Your task to perform on an android device: change notification settings in the gmail app Image 0: 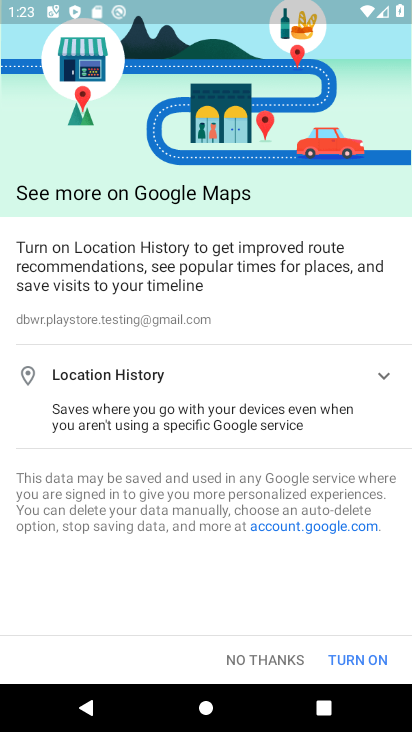
Step 0: press home button
Your task to perform on an android device: change notification settings in the gmail app Image 1: 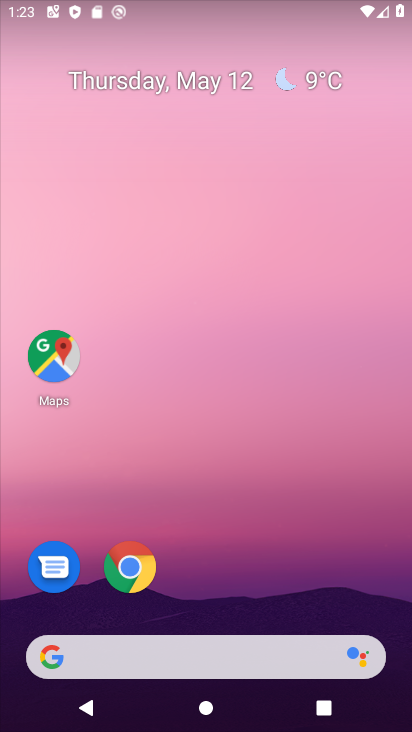
Step 1: drag from (236, 575) to (236, 182)
Your task to perform on an android device: change notification settings in the gmail app Image 2: 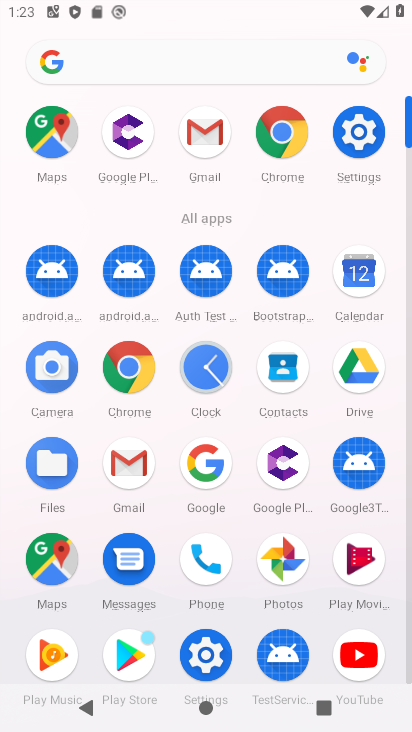
Step 2: click (192, 150)
Your task to perform on an android device: change notification settings in the gmail app Image 3: 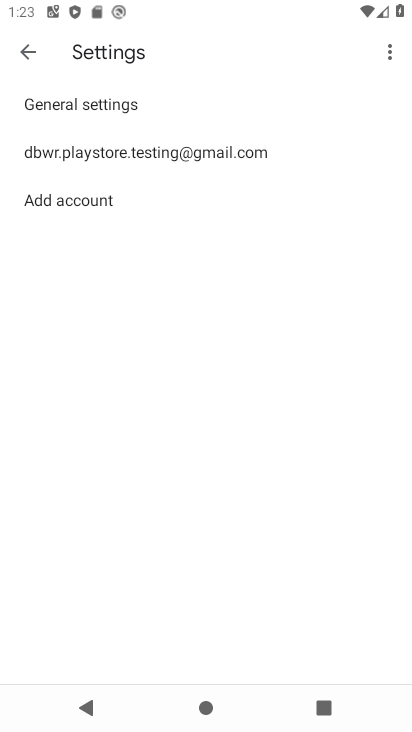
Step 3: click (216, 155)
Your task to perform on an android device: change notification settings in the gmail app Image 4: 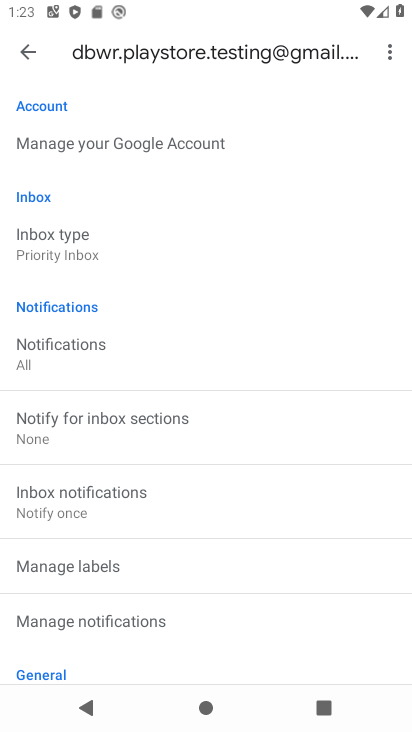
Step 4: click (50, 368)
Your task to perform on an android device: change notification settings in the gmail app Image 5: 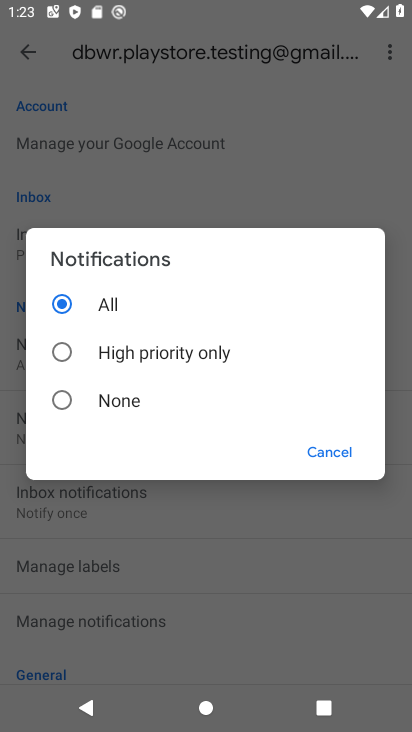
Step 5: click (69, 402)
Your task to perform on an android device: change notification settings in the gmail app Image 6: 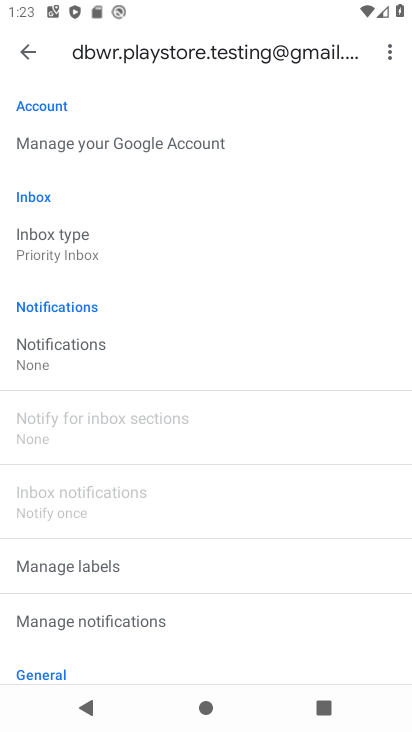
Step 6: task complete